Your task to perform on an android device: Search for flights from NYC to San Francisco Image 0: 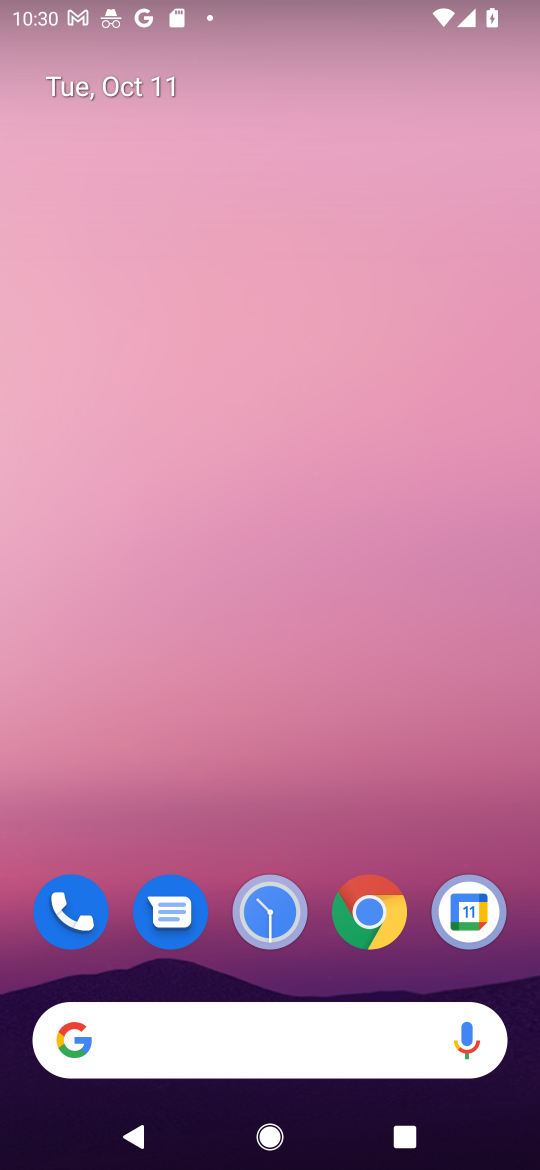
Step 0: click (367, 914)
Your task to perform on an android device: Search for flights from NYC to San Francisco Image 1: 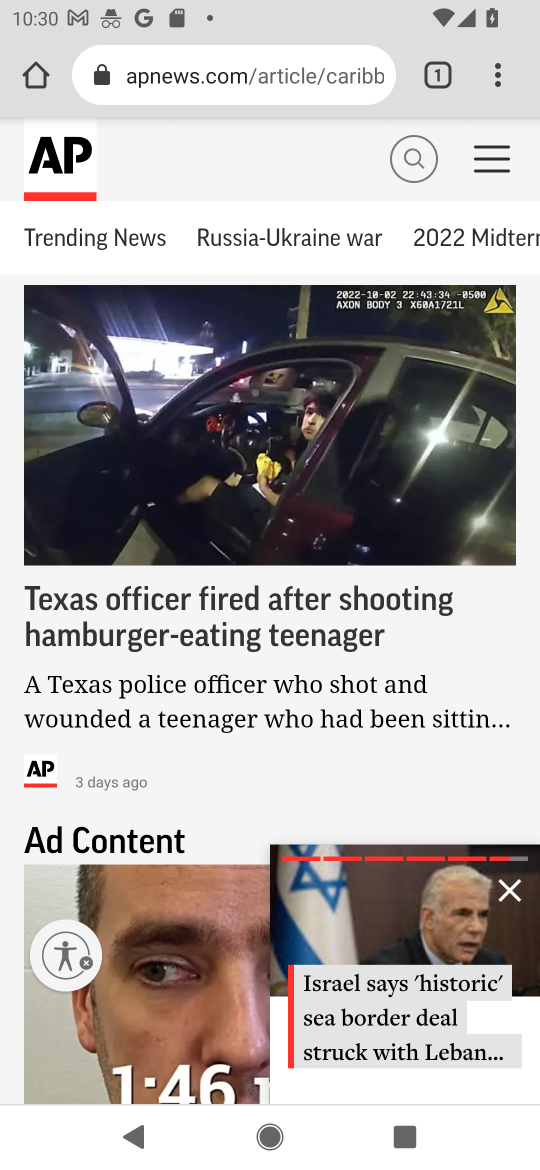
Step 1: click (206, 46)
Your task to perform on an android device: Search for flights from NYC to San Francisco Image 2: 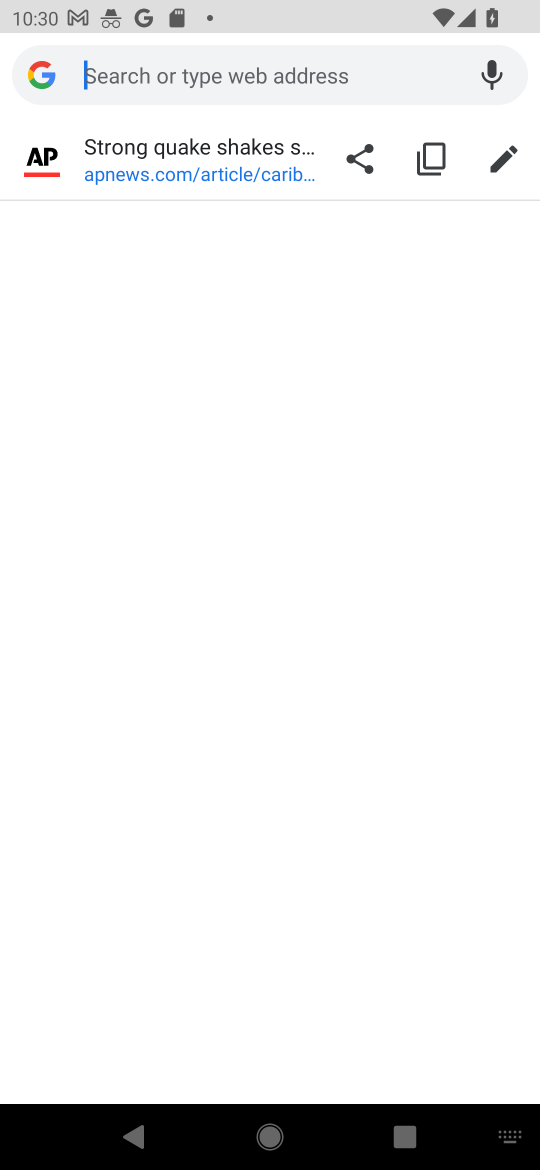
Step 2: type "flights from NYC to San Francisco"
Your task to perform on an android device: Search for flights from NYC to San Francisco Image 3: 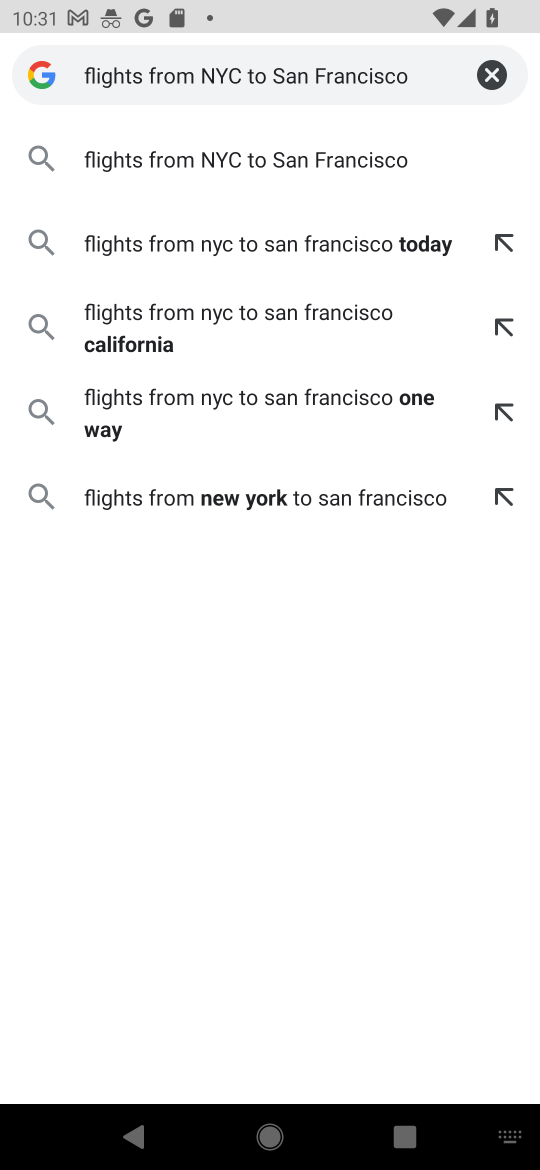
Step 3: click (183, 144)
Your task to perform on an android device: Search for flights from NYC to San Francisco Image 4: 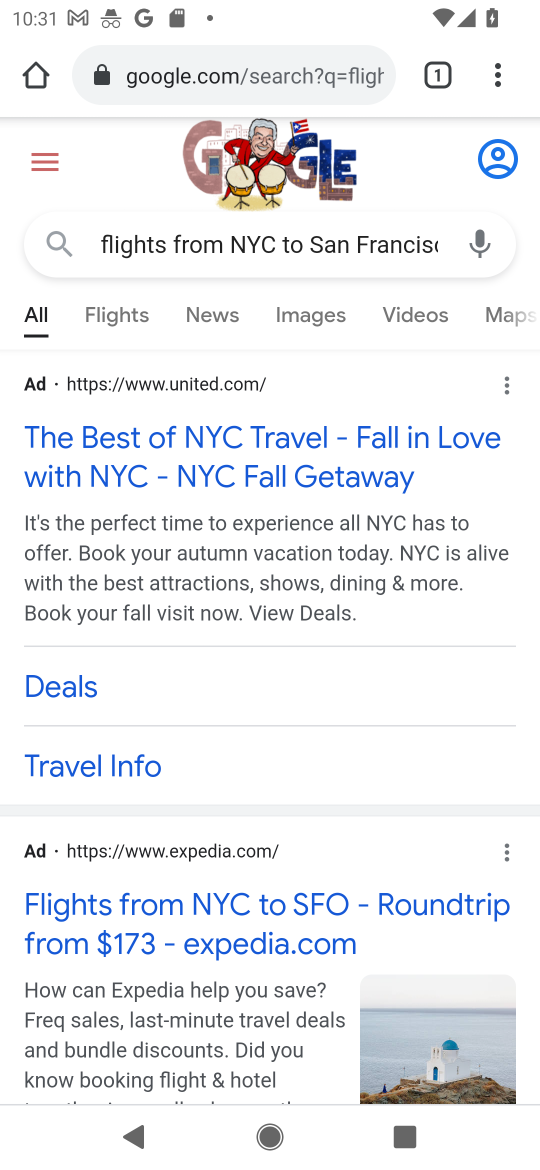
Step 4: drag from (241, 755) to (275, 304)
Your task to perform on an android device: Search for flights from NYC to San Francisco Image 5: 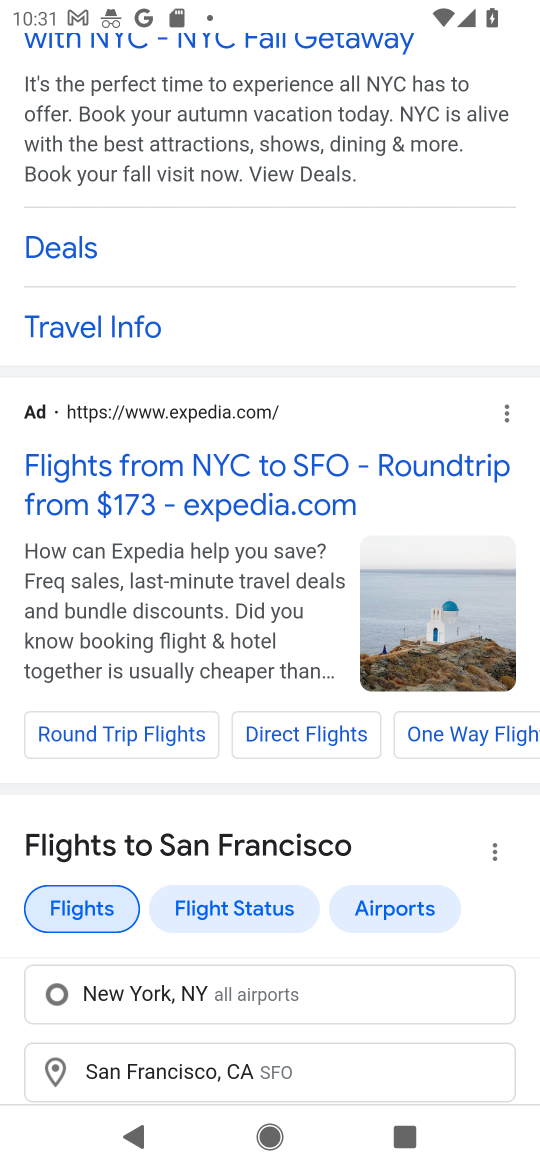
Step 5: click (200, 481)
Your task to perform on an android device: Search for flights from NYC to San Francisco Image 6: 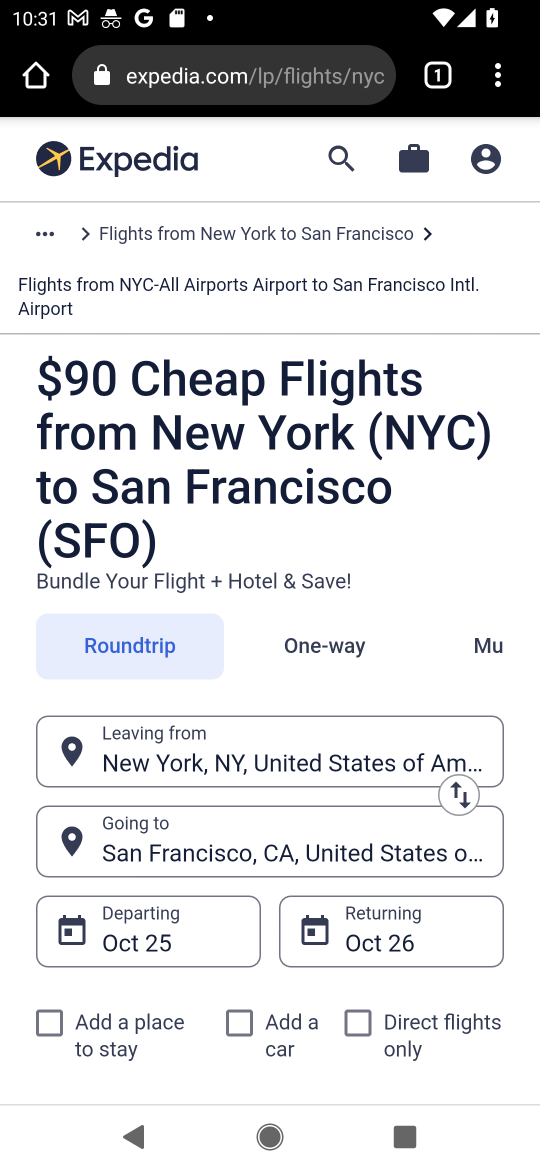
Step 6: drag from (322, 689) to (278, 207)
Your task to perform on an android device: Search for flights from NYC to San Francisco Image 7: 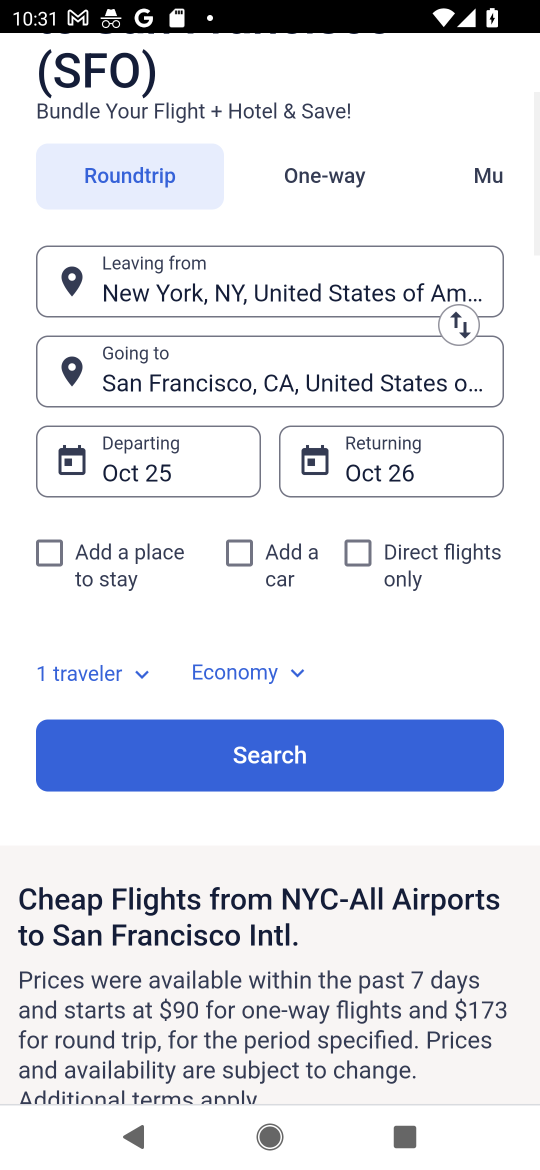
Step 7: click (248, 764)
Your task to perform on an android device: Search for flights from NYC to San Francisco Image 8: 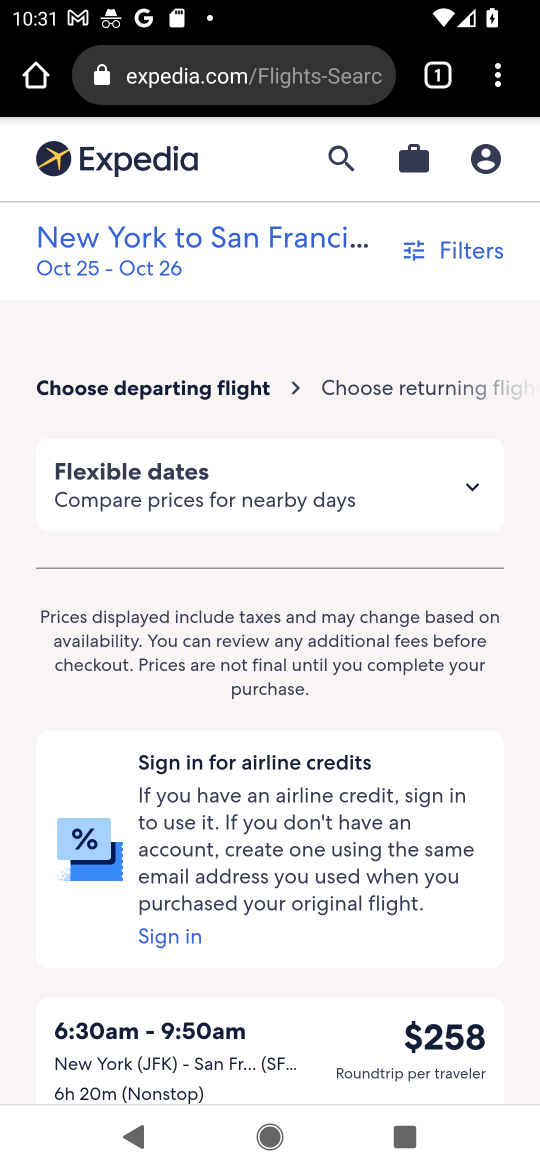
Step 8: task complete